Your task to perform on an android device: see tabs open on other devices in the chrome app Image 0: 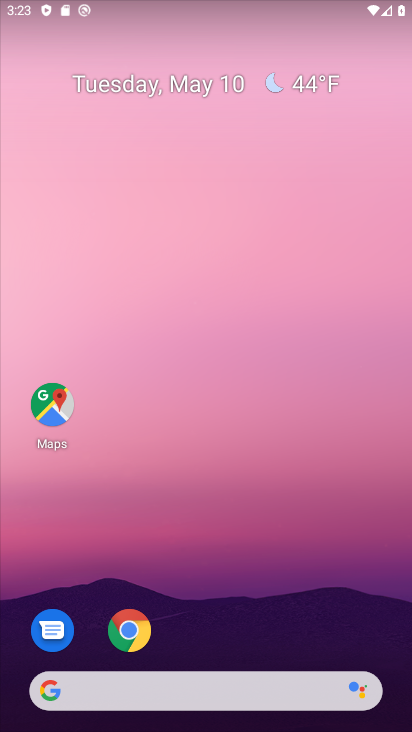
Step 0: click (120, 640)
Your task to perform on an android device: see tabs open on other devices in the chrome app Image 1: 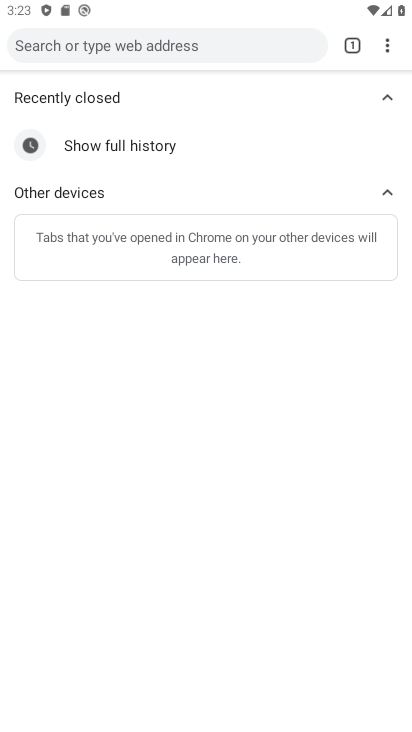
Step 1: task complete